Your task to perform on an android device: Clear all items from cart on amazon. Add "apple airpods" to the cart on amazon, then select checkout. Image 0: 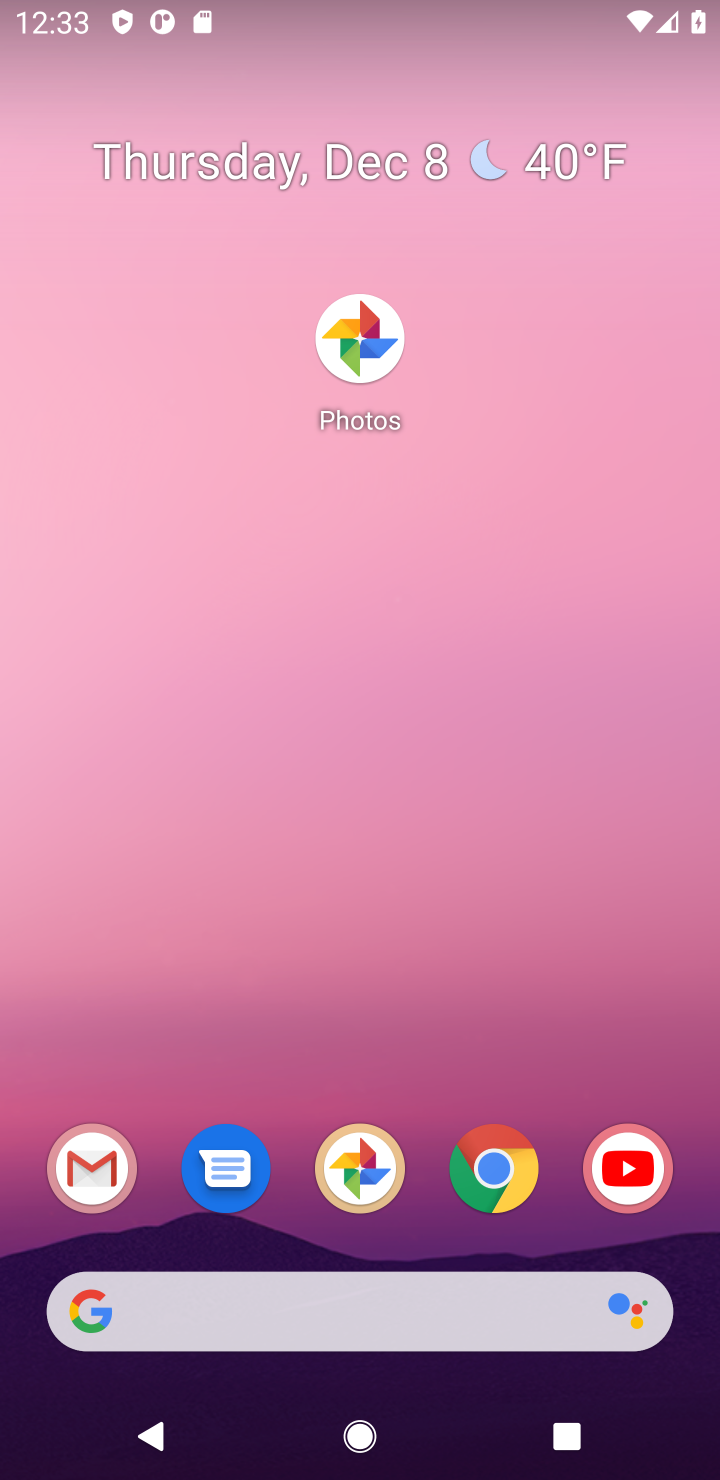
Step 0: drag from (420, 1266) to (321, 333)
Your task to perform on an android device: Clear all items from cart on amazon. Add "apple airpods" to the cart on amazon, then select checkout. Image 1: 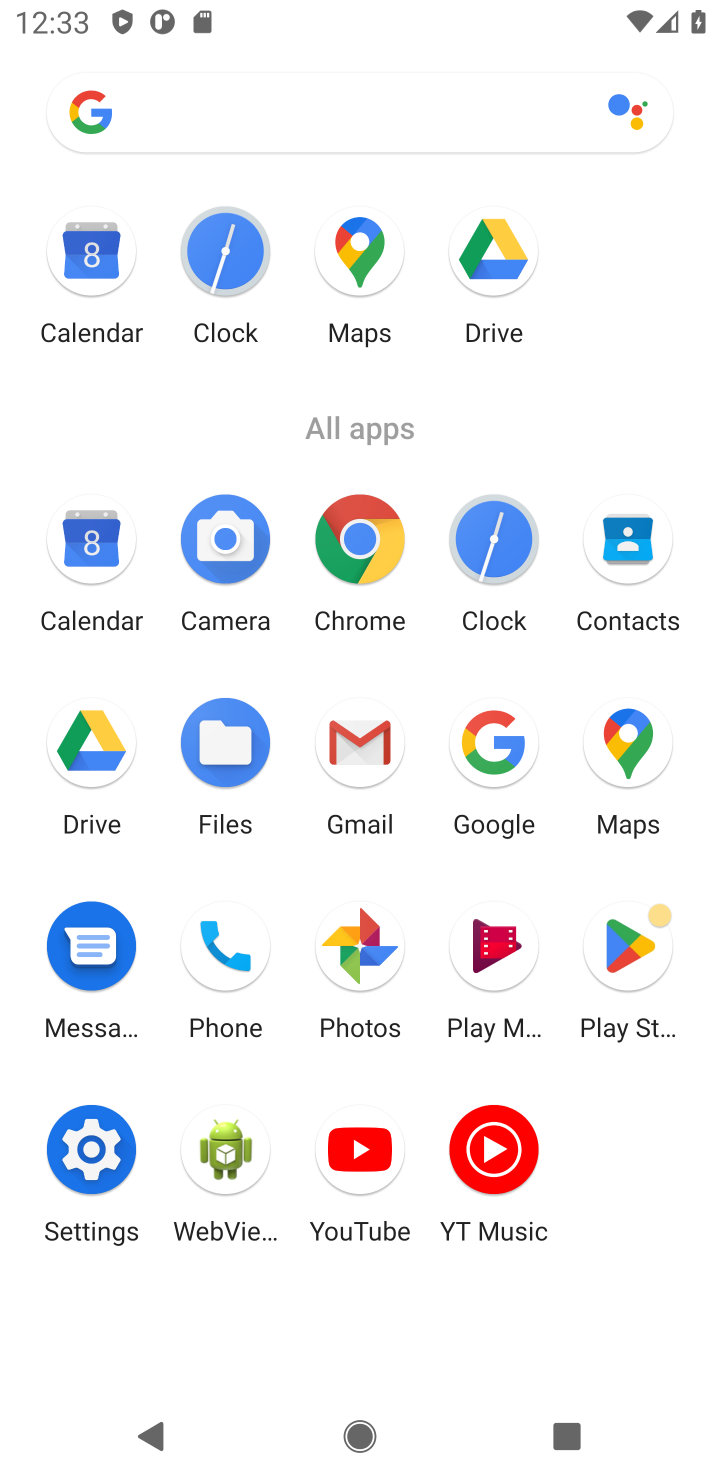
Step 1: click (477, 740)
Your task to perform on an android device: Clear all items from cart on amazon. Add "apple airpods" to the cart on amazon, then select checkout. Image 2: 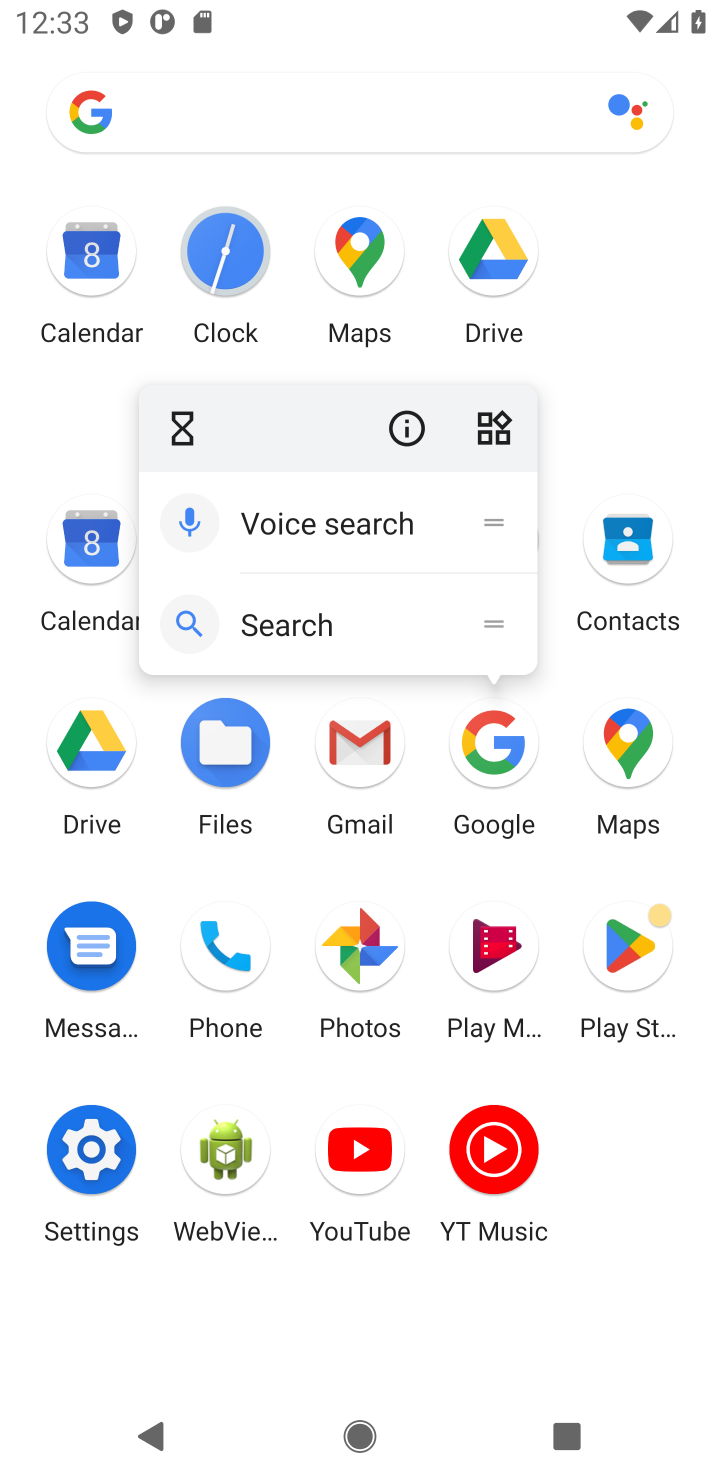
Step 2: click (496, 746)
Your task to perform on an android device: Clear all items from cart on amazon. Add "apple airpods" to the cart on amazon, then select checkout. Image 3: 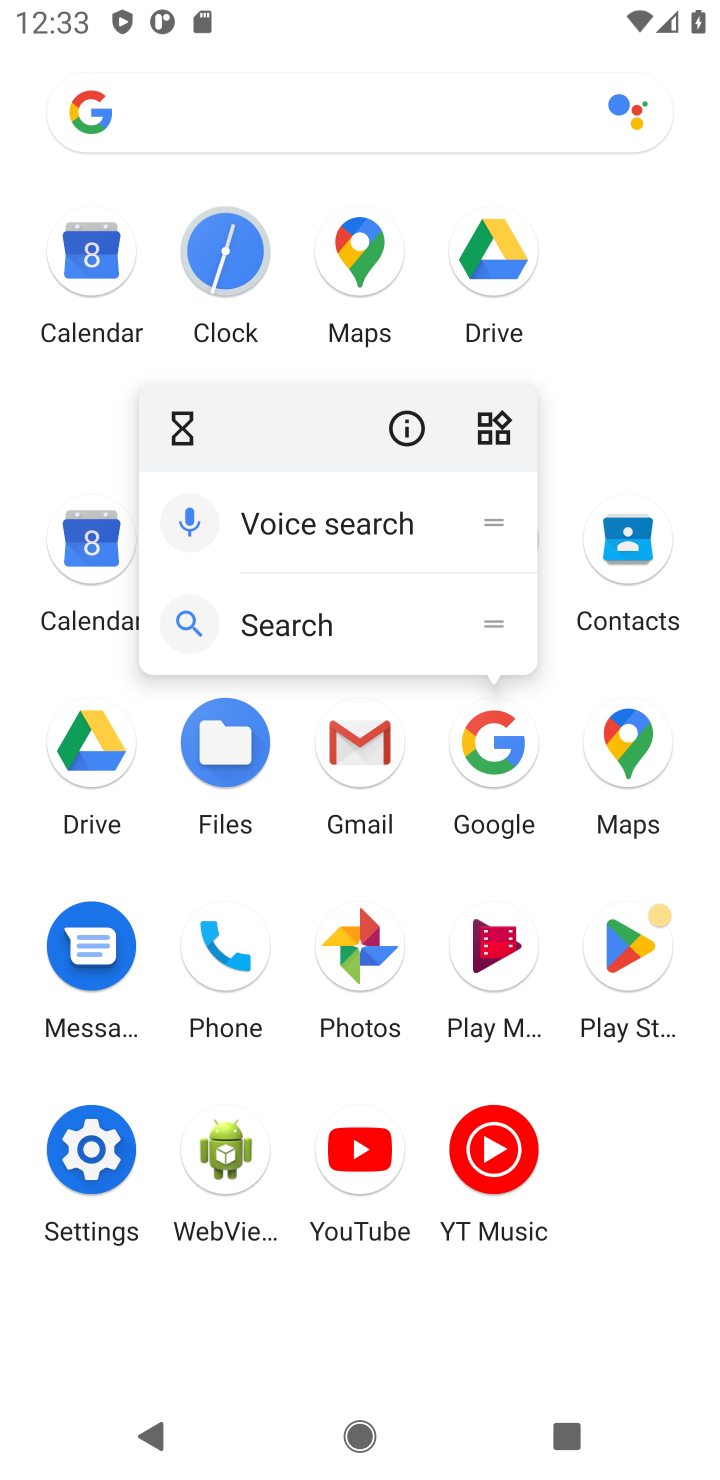
Step 3: click (498, 750)
Your task to perform on an android device: Clear all items from cart on amazon. Add "apple airpods" to the cart on amazon, then select checkout. Image 4: 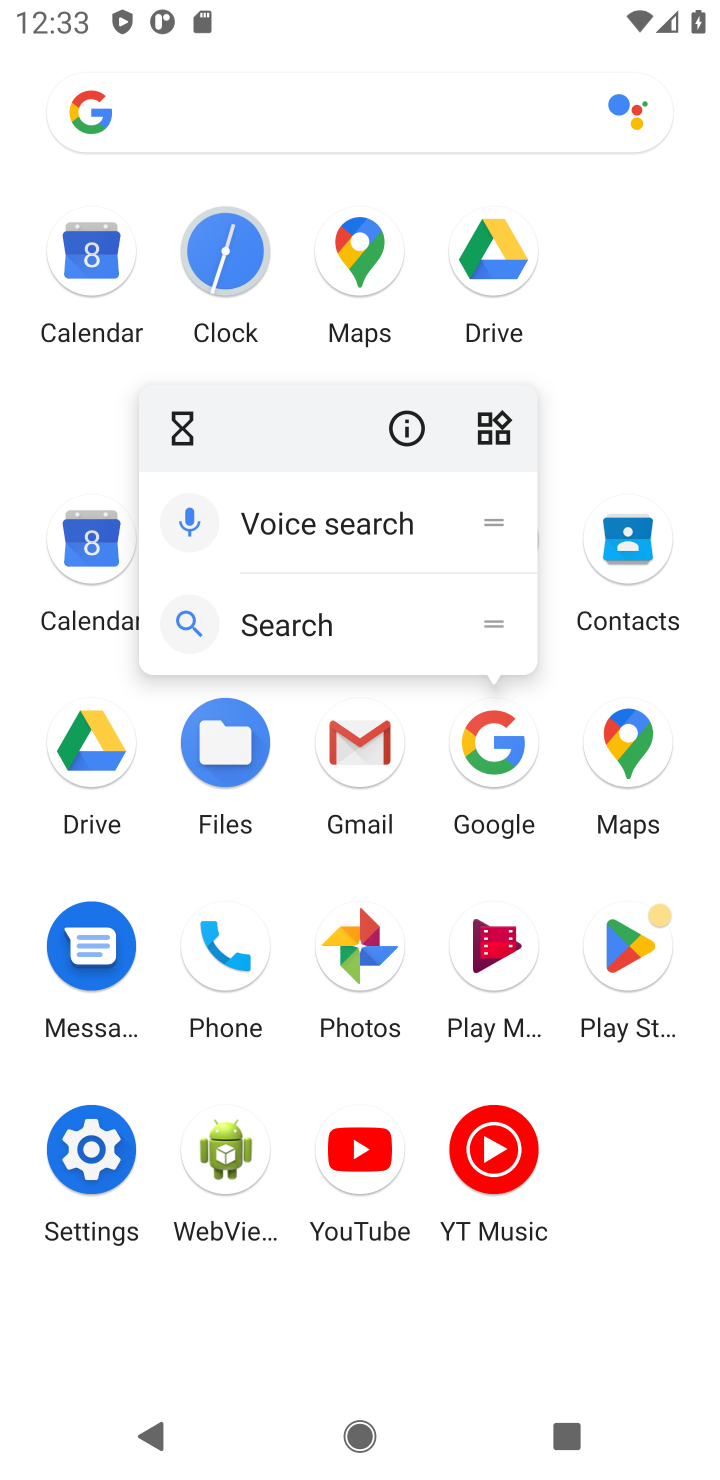
Step 4: click (478, 766)
Your task to perform on an android device: Clear all items from cart on amazon. Add "apple airpods" to the cart on amazon, then select checkout. Image 5: 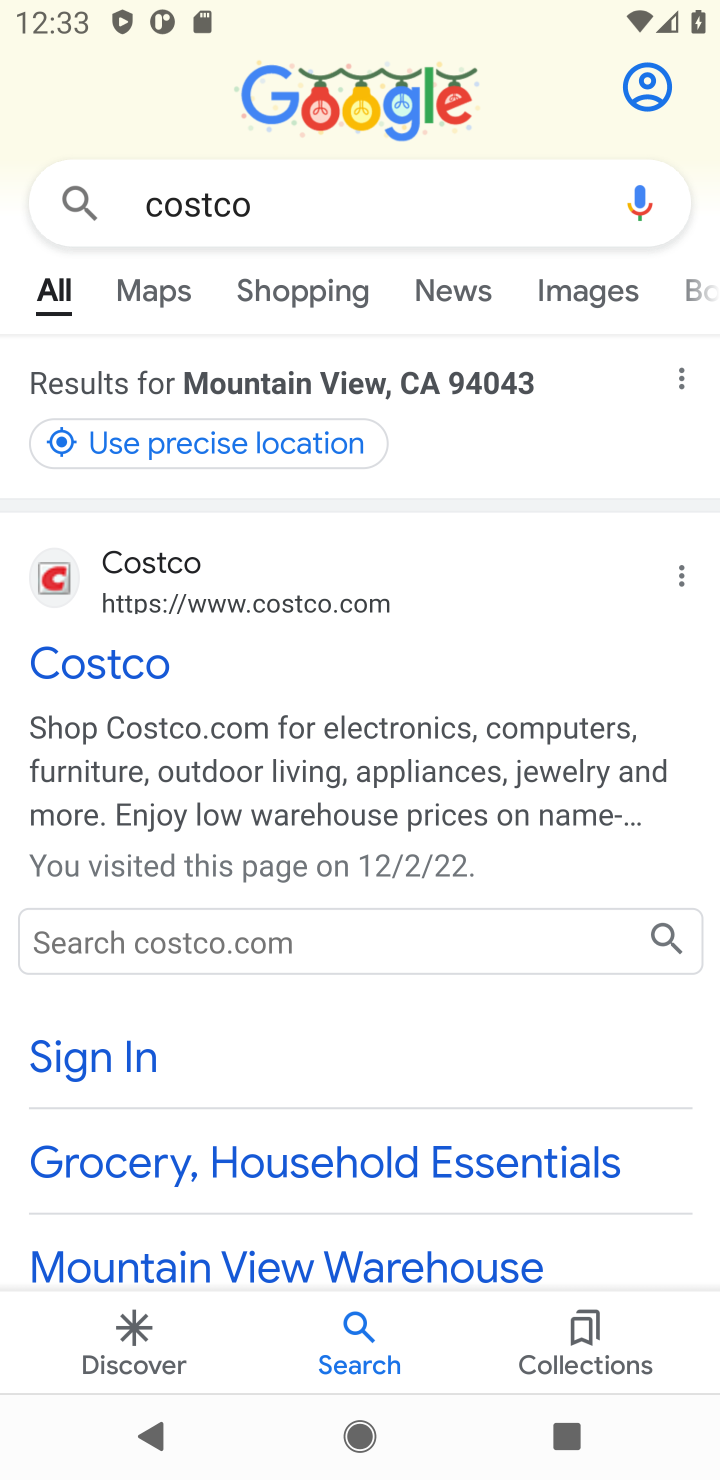
Step 5: click (238, 211)
Your task to perform on an android device: Clear all items from cart on amazon. Add "apple airpods" to the cart on amazon, then select checkout. Image 6: 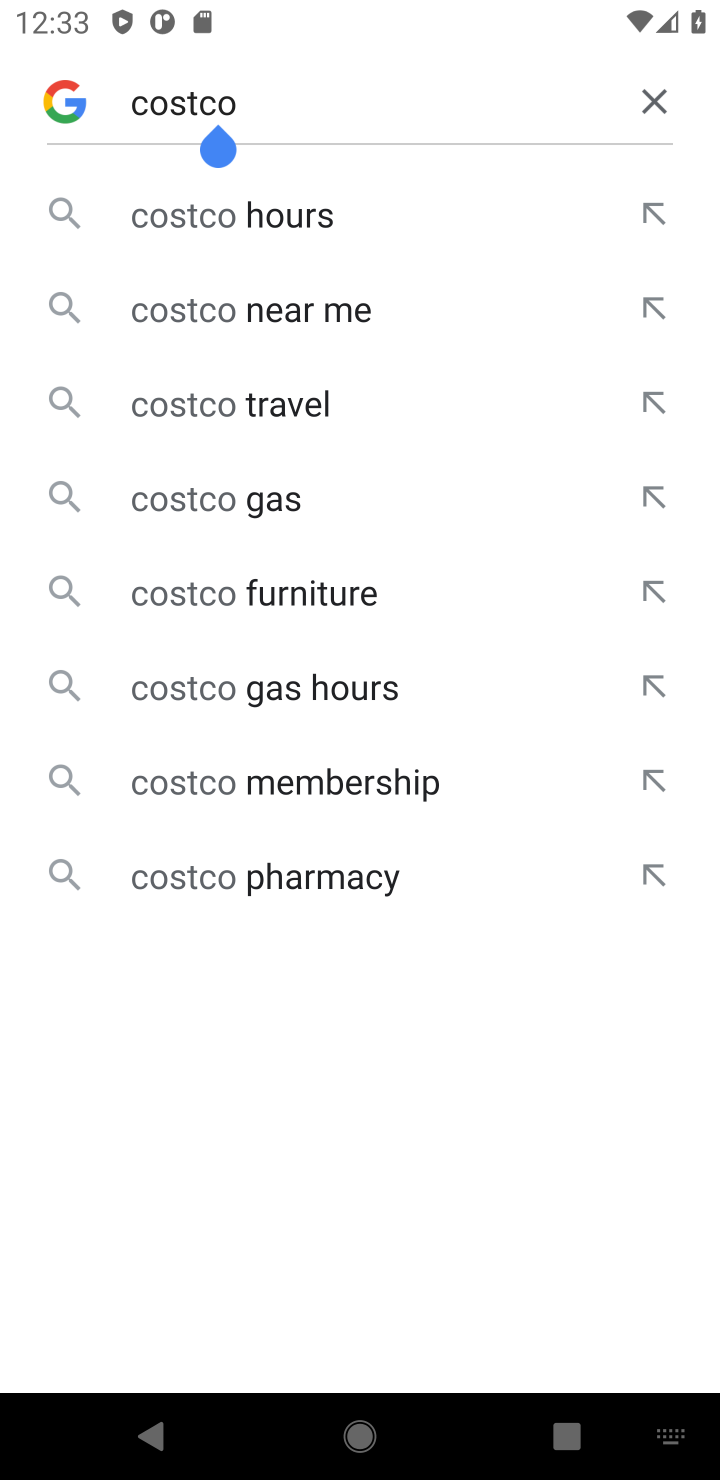
Step 6: click (647, 101)
Your task to perform on an android device: Clear all items from cart on amazon. Add "apple airpods" to the cart on amazon, then select checkout. Image 7: 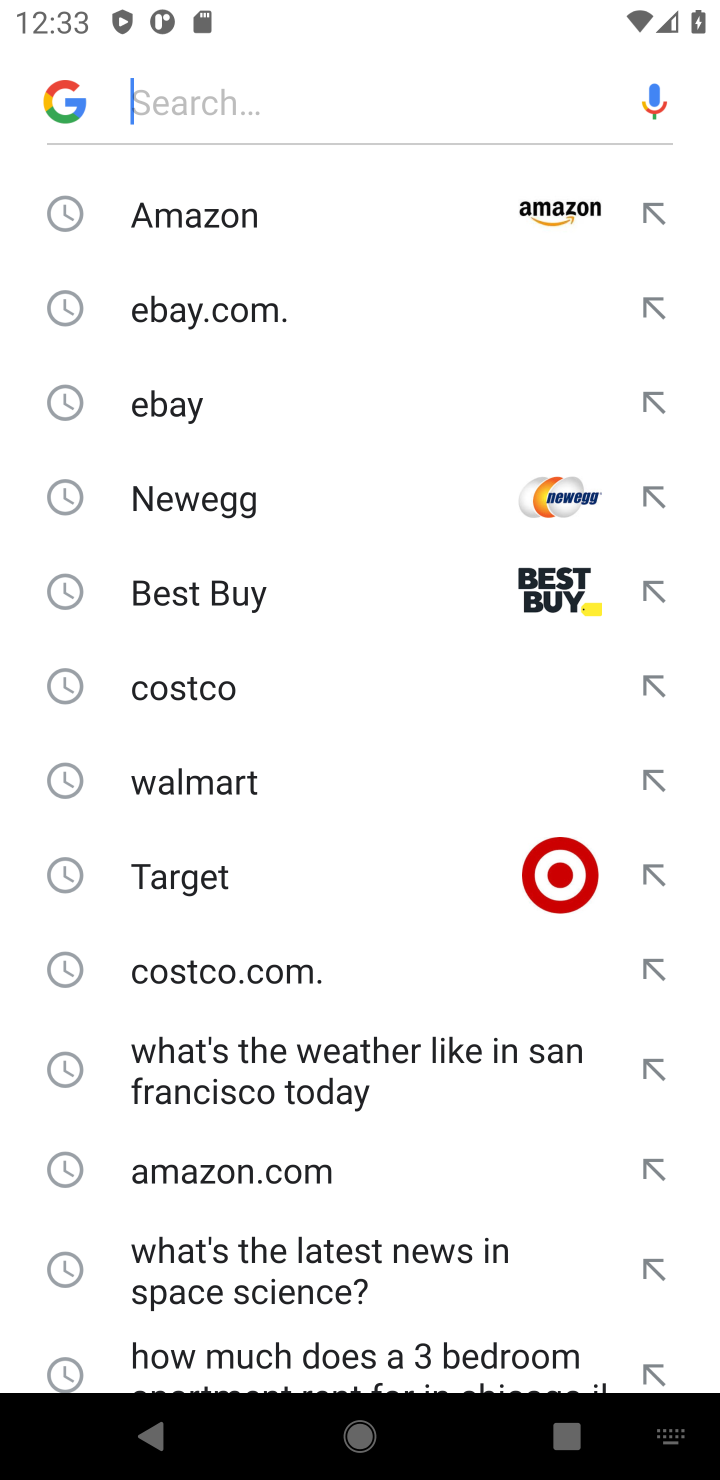
Step 7: type "amazon"
Your task to perform on an android device: Clear all items from cart on amazon. Add "apple airpods" to the cart on amazon, then select checkout. Image 8: 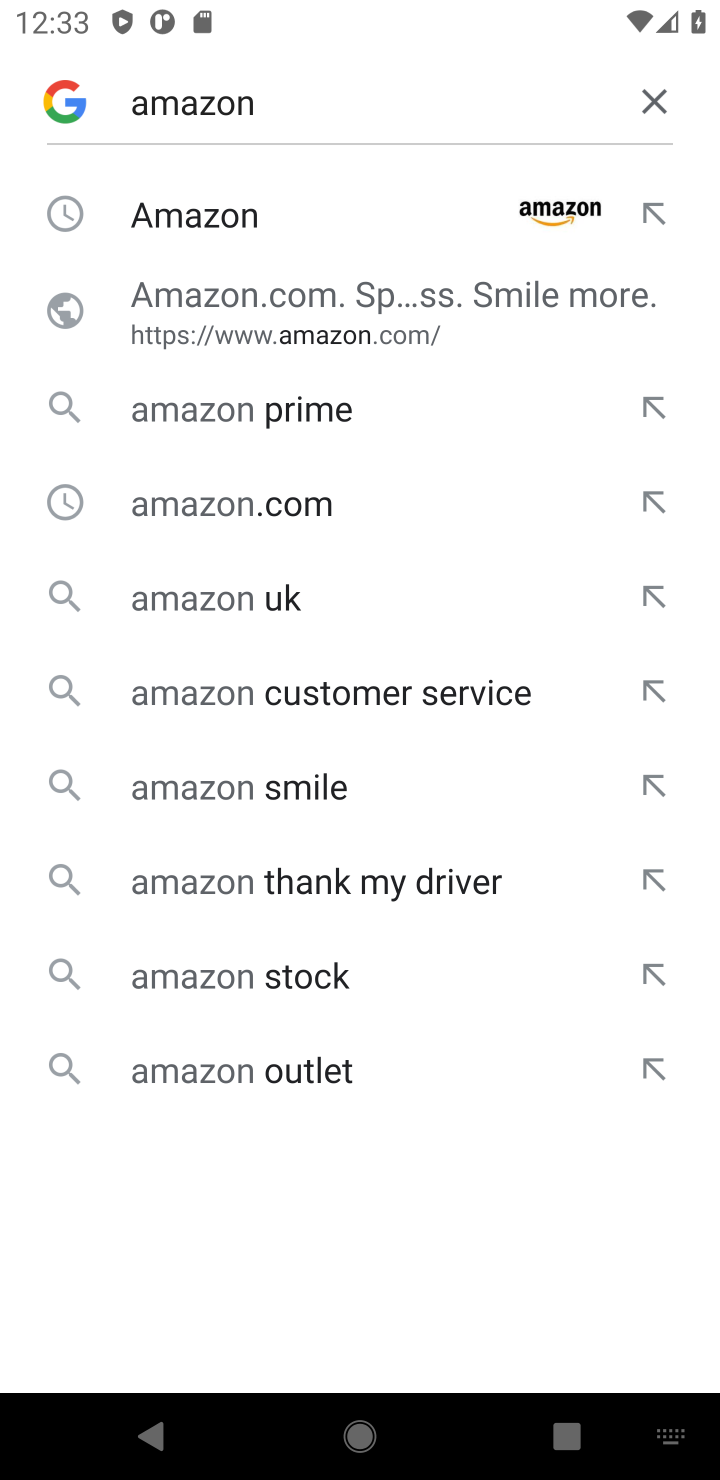
Step 8: click (540, 190)
Your task to perform on an android device: Clear all items from cart on amazon. Add "apple airpods" to the cart on amazon, then select checkout. Image 9: 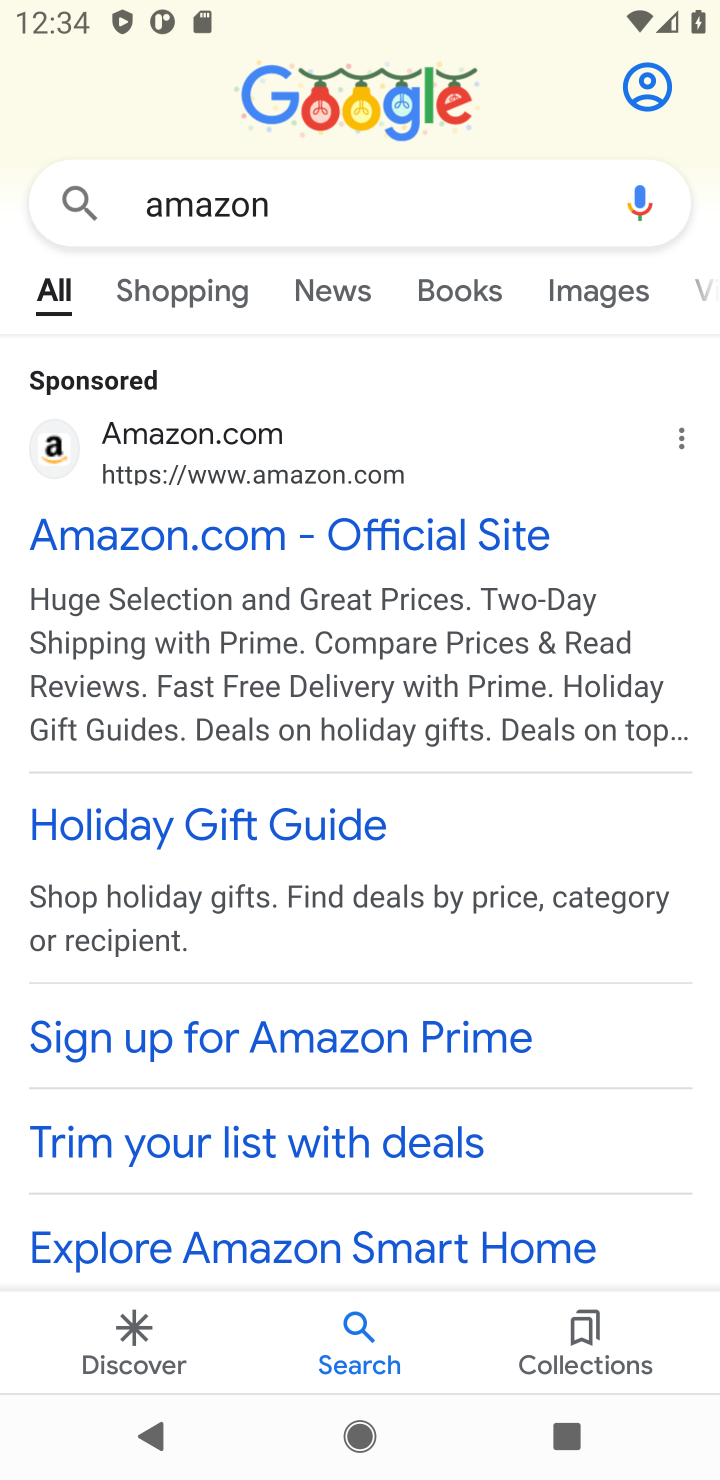
Step 9: click (235, 519)
Your task to perform on an android device: Clear all items from cart on amazon. Add "apple airpods" to the cart on amazon, then select checkout. Image 10: 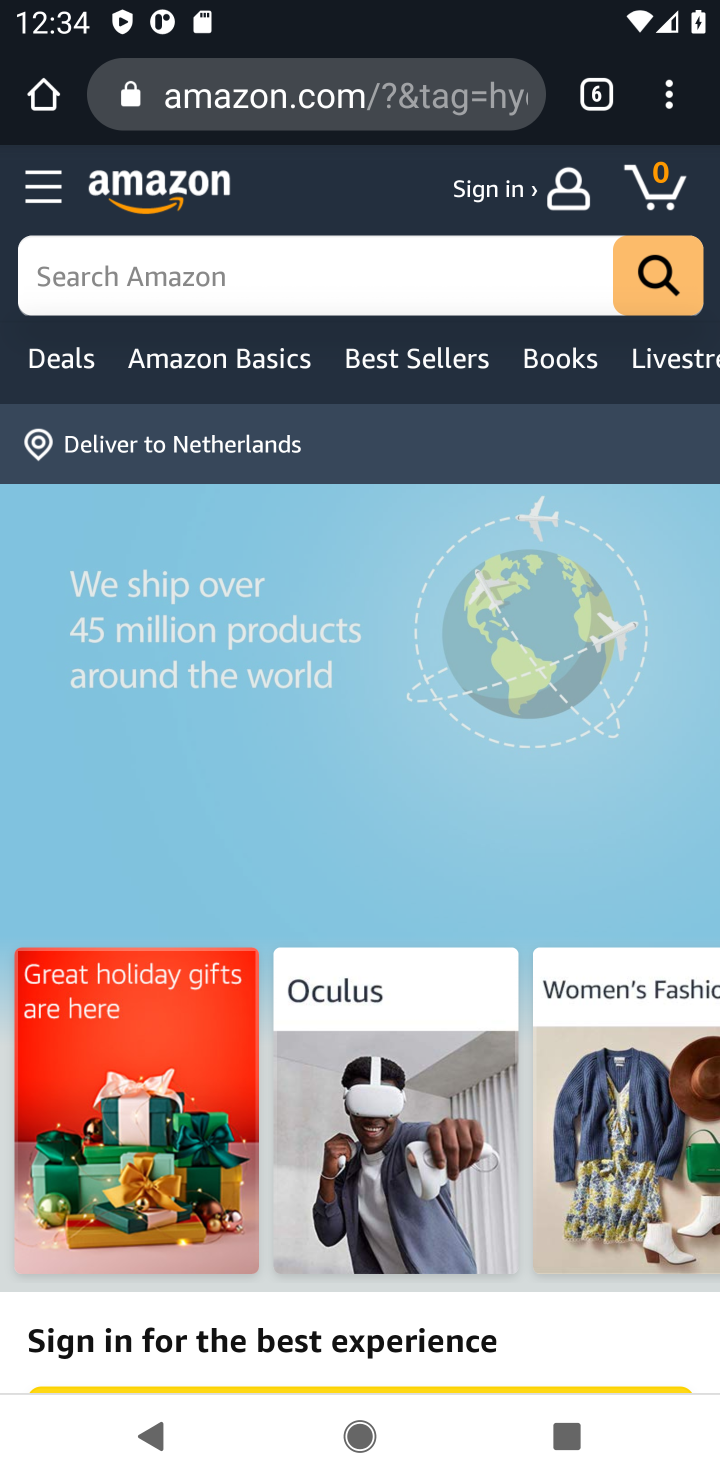
Step 10: click (186, 264)
Your task to perform on an android device: Clear all items from cart on amazon. Add "apple airpods" to the cart on amazon, then select checkout. Image 11: 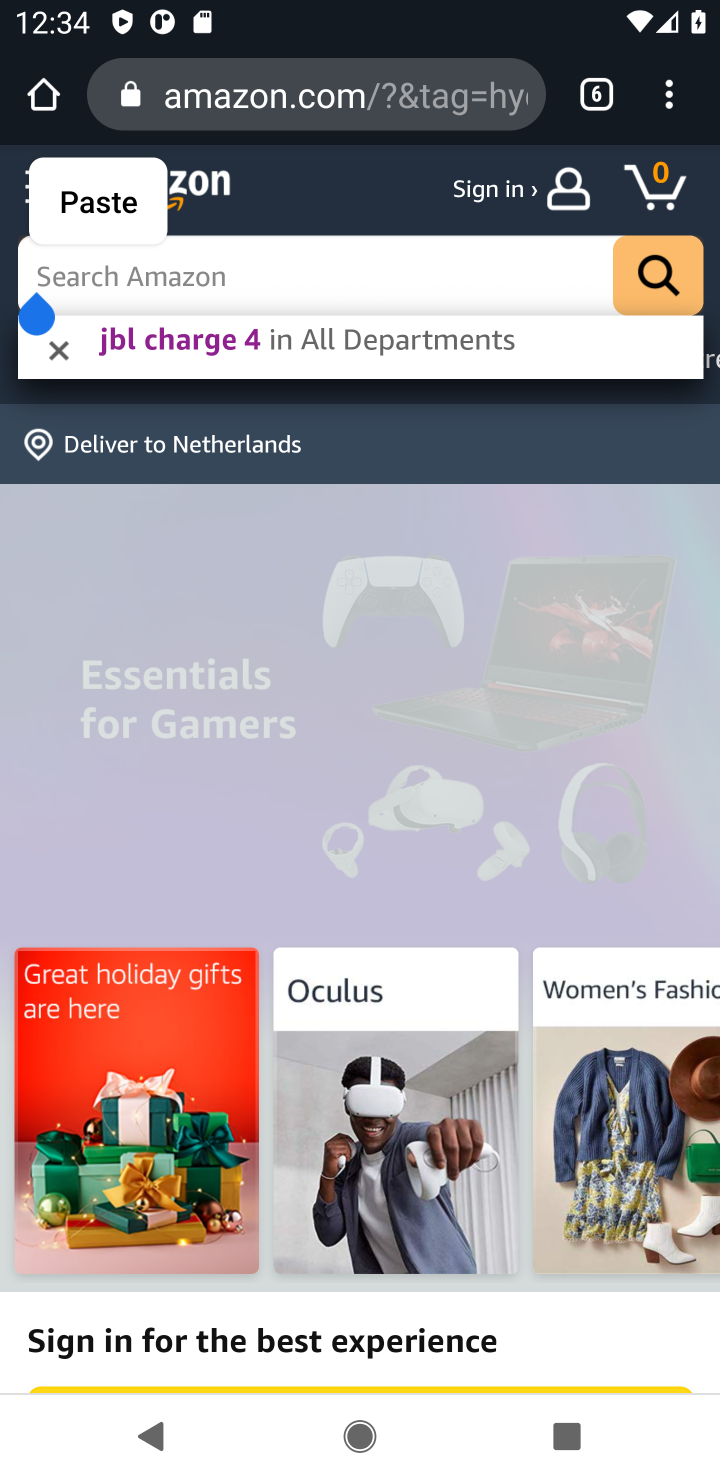
Step 11: type "apple airpods"
Your task to perform on an android device: Clear all items from cart on amazon. Add "apple airpods" to the cart on amazon, then select checkout. Image 12: 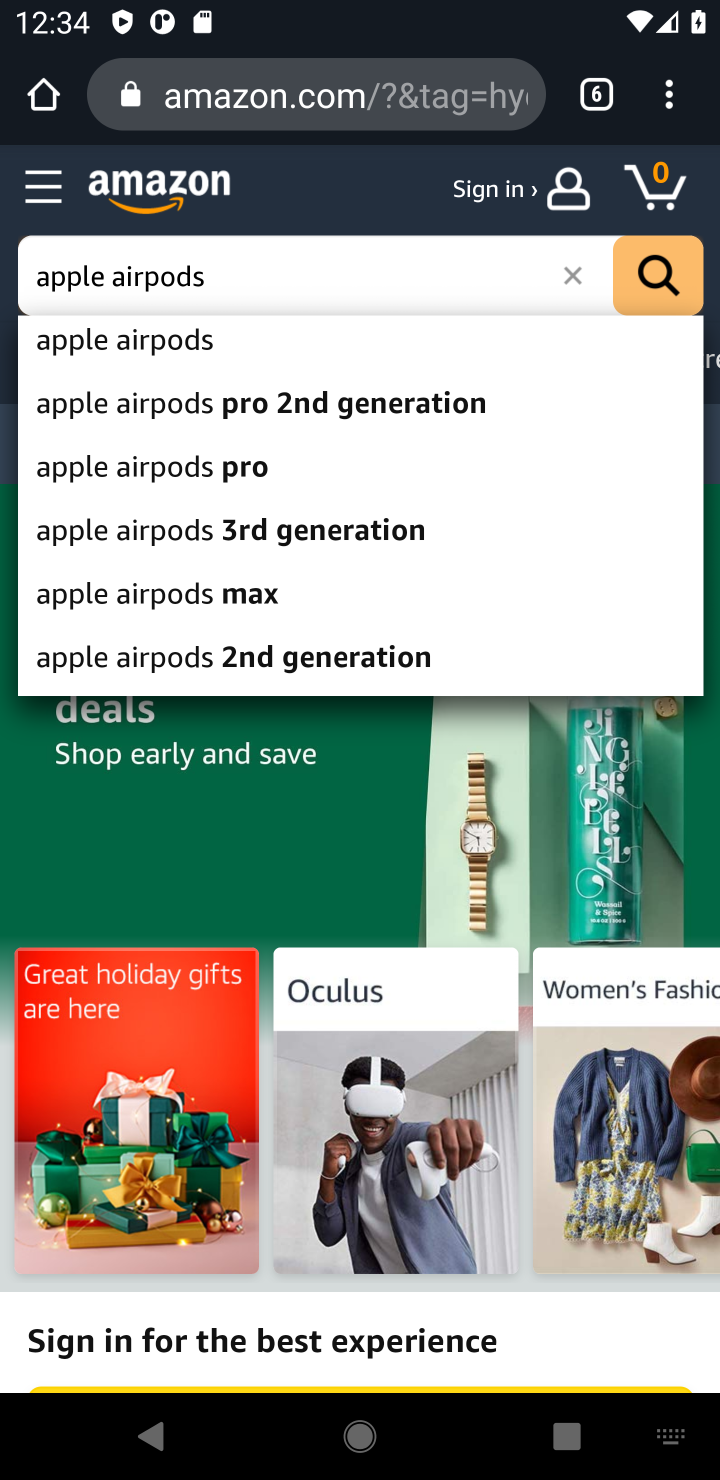
Step 12: click (142, 349)
Your task to perform on an android device: Clear all items from cart on amazon. Add "apple airpods" to the cart on amazon, then select checkout. Image 13: 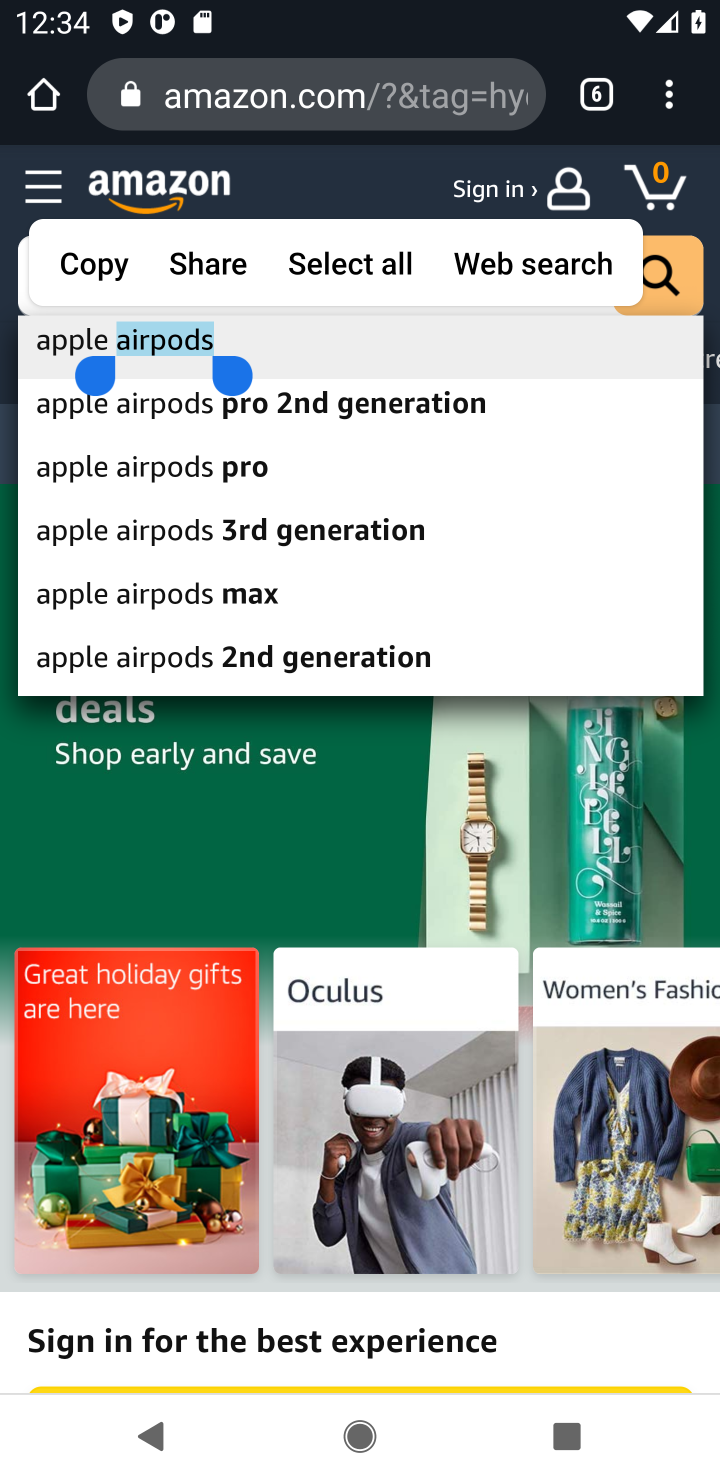
Step 13: click (82, 338)
Your task to perform on an android device: Clear all items from cart on amazon. Add "apple airpods" to the cart on amazon, then select checkout. Image 14: 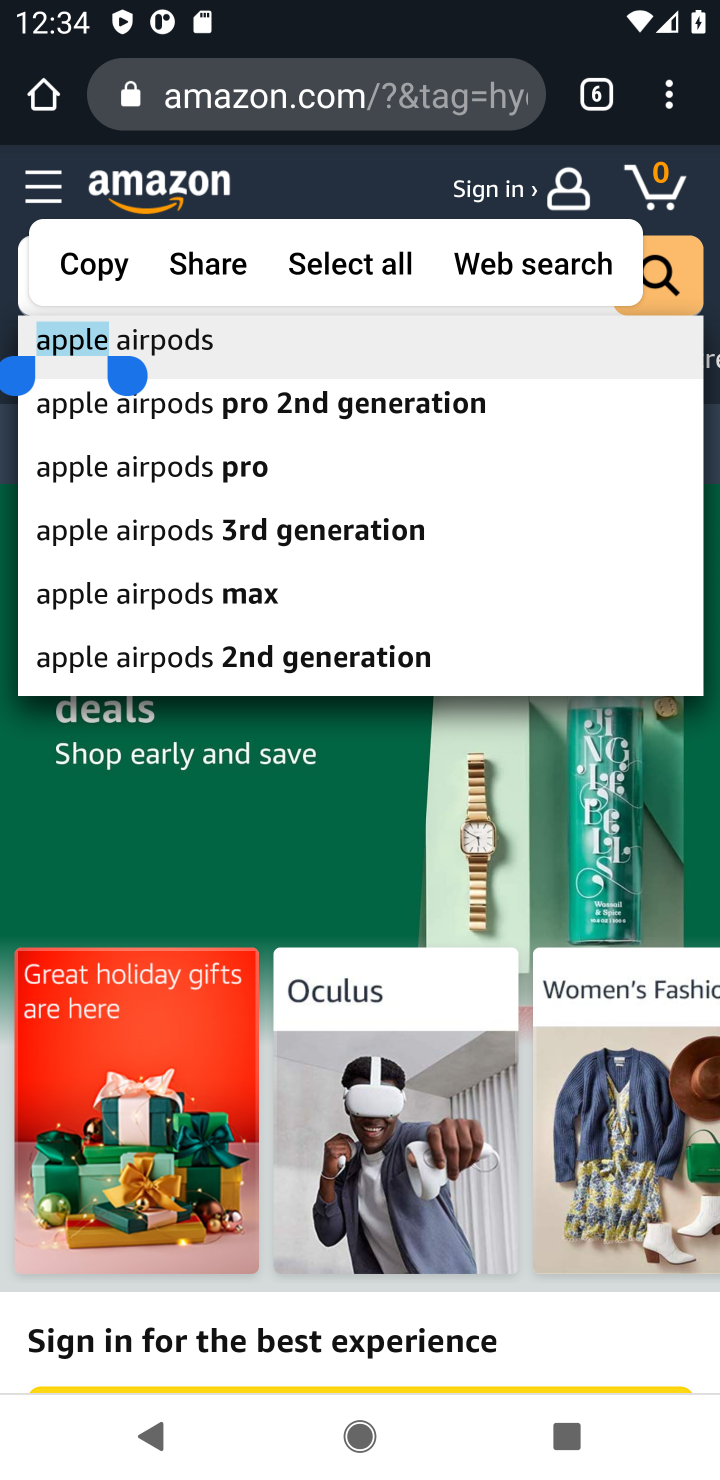
Step 14: click (154, 333)
Your task to perform on an android device: Clear all items from cart on amazon. Add "apple airpods" to the cart on amazon, then select checkout. Image 15: 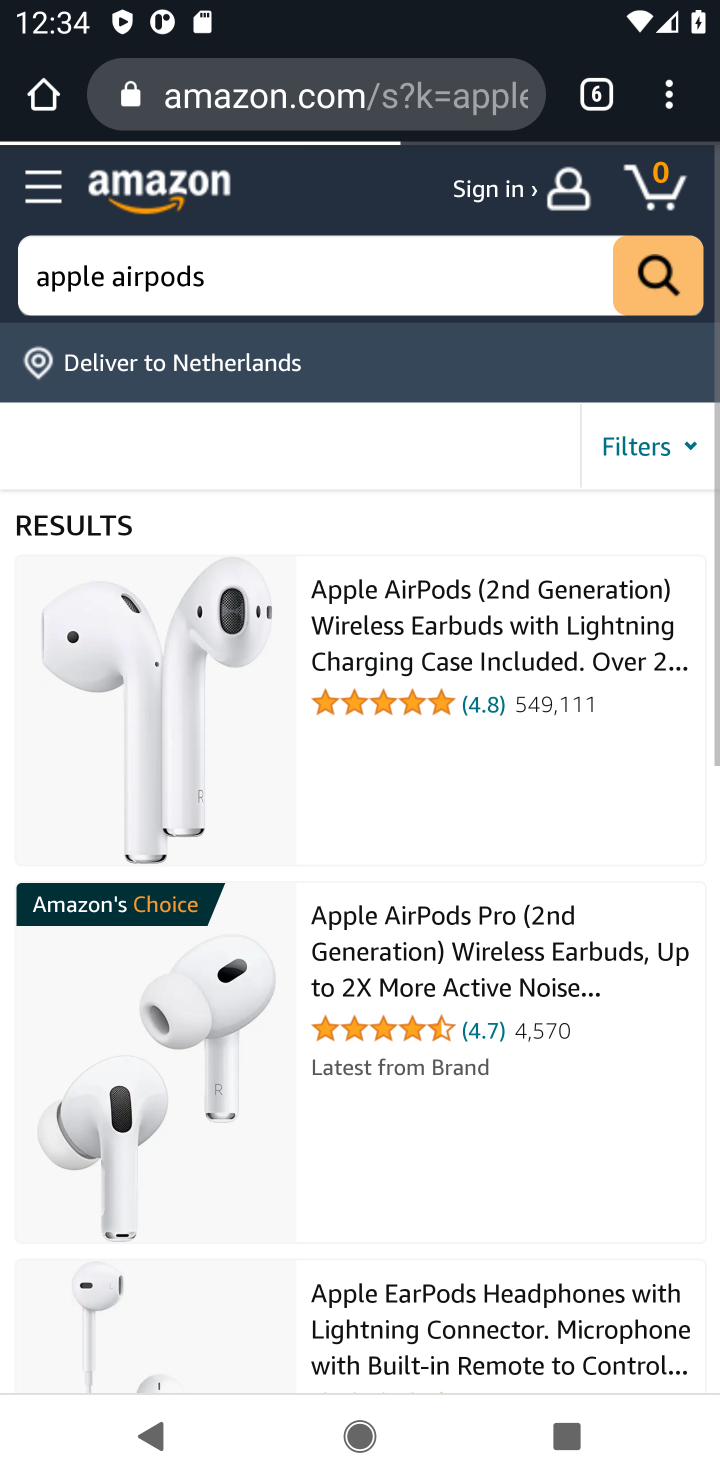
Step 15: click (657, 275)
Your task to perform on an android device: Clear all items from cart on amazon. Add "apple airpods" to the cart on amazon, then select checkout. Image 16: 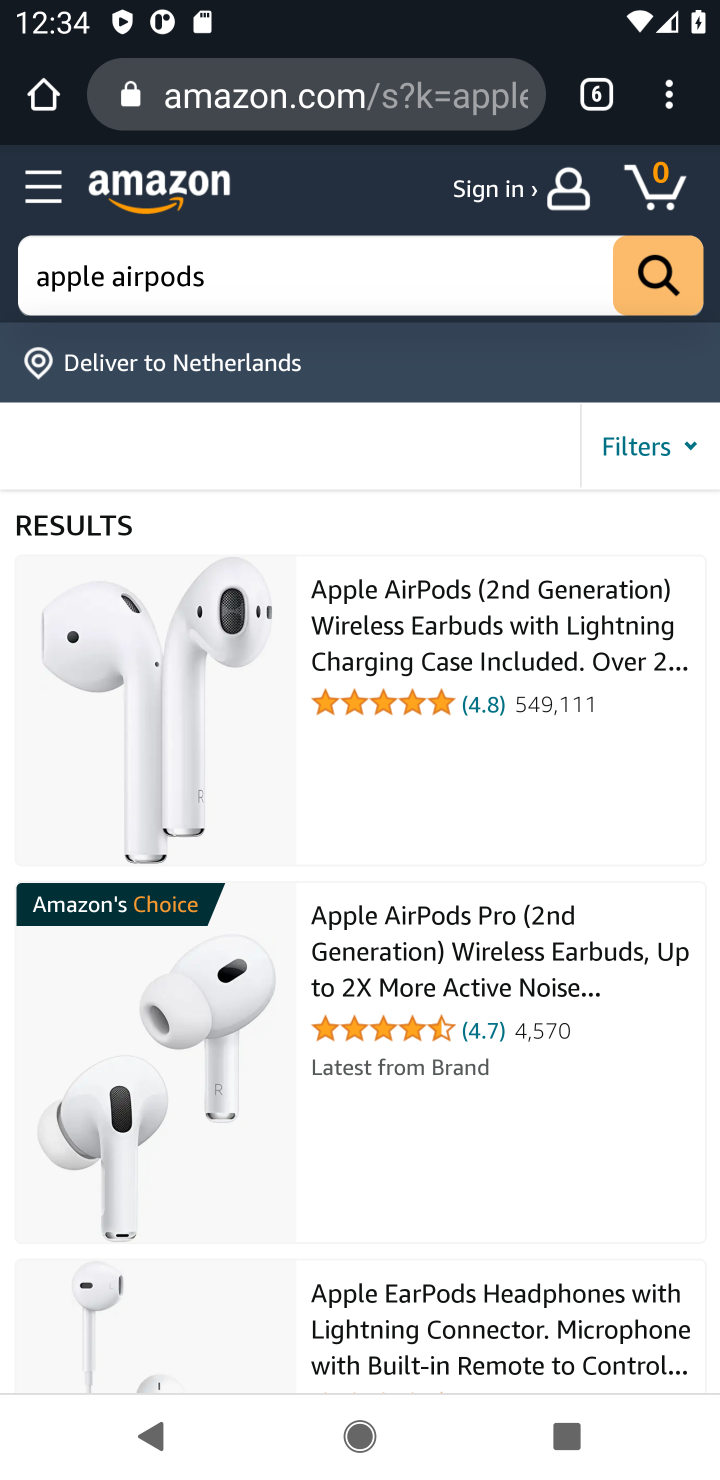
Step 16: click (431, 669)
Your task to perform on an android device: Clear all items from cart on amazon. Add "apple airpods" to the cart on amazon, then select checkout. Image 17: 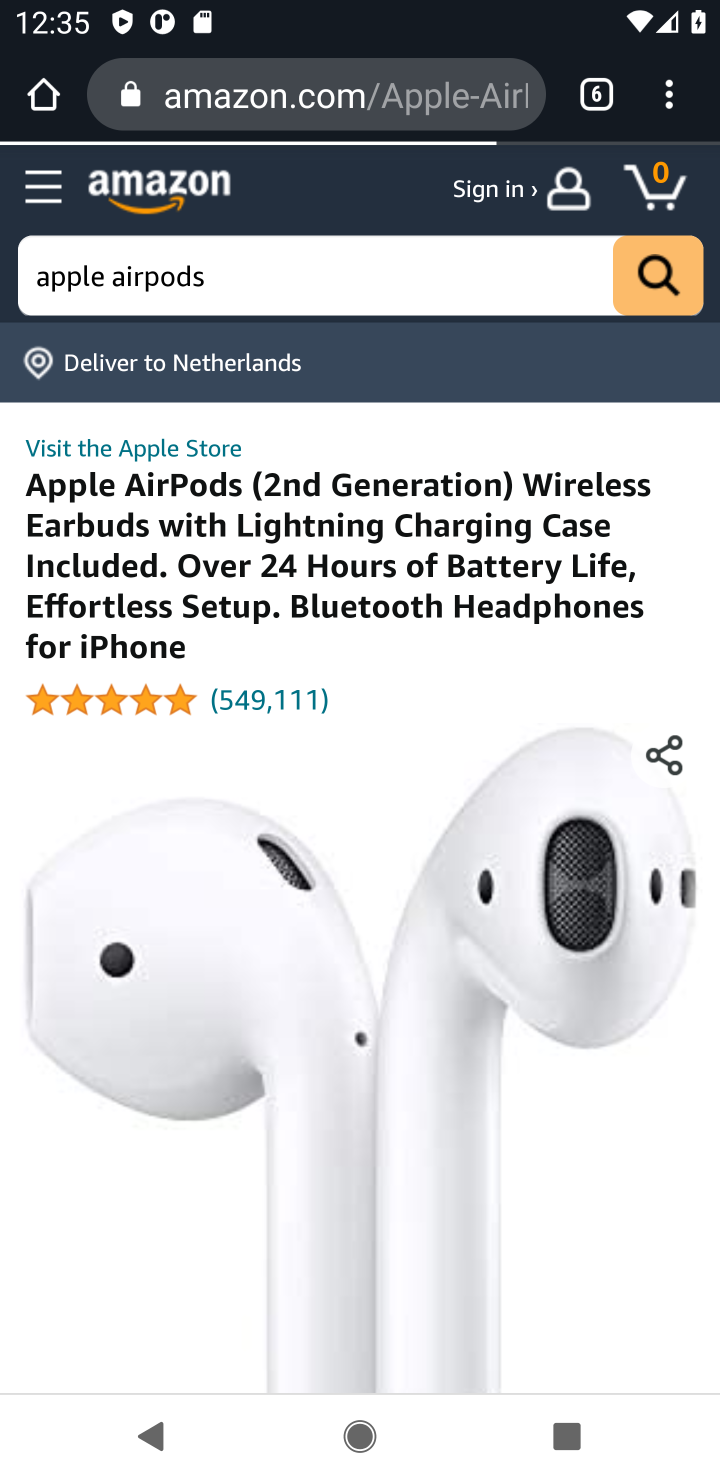
Step 17: task complete